Your task to perform on an android device: Toggle the flashlight Image 0: 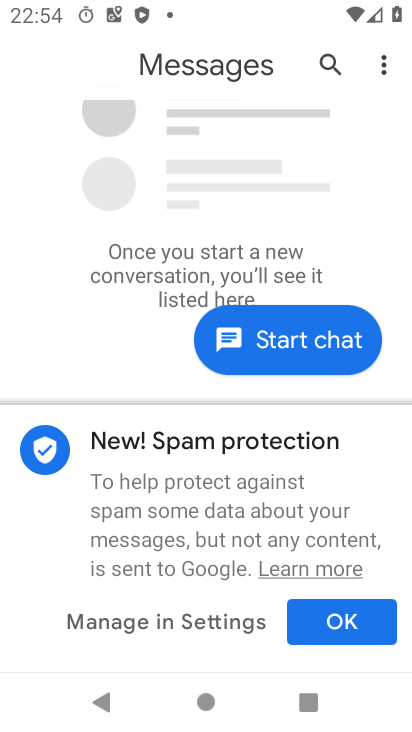
Step 0: drag from (234, 464) to (277, 262)
Your task to perform on an android device: Toggle the flashlight Image 1: 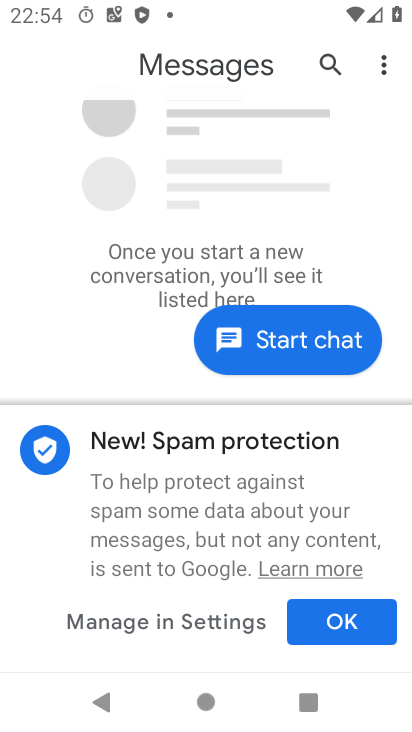
Step 1: drag from (162, 557) to (210, 338)
Your task to perform on an android device: Toggle the flashlight Image 2: 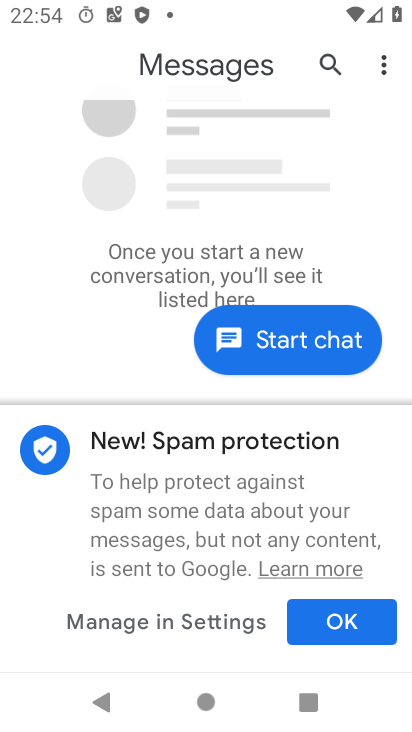
Step 2: drag from (168, 529) to (223, 305)
Your task to perform on an android device: Toggle the flashlight Image 3: 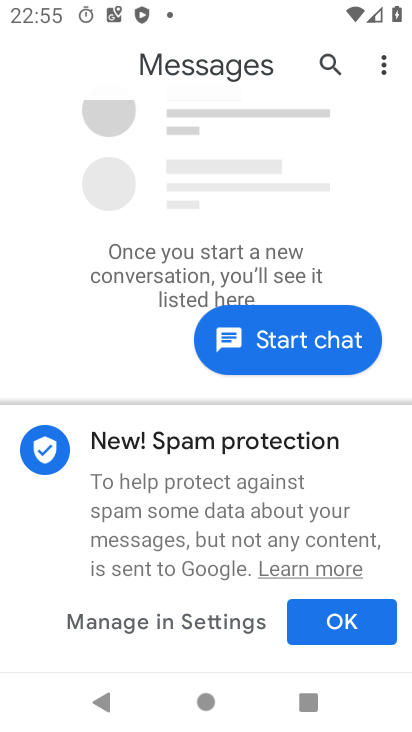
Step 3: drag from (369, 175) to (370, 487)
Your task to perform on an android device: Toggle the flashlight Image 4: 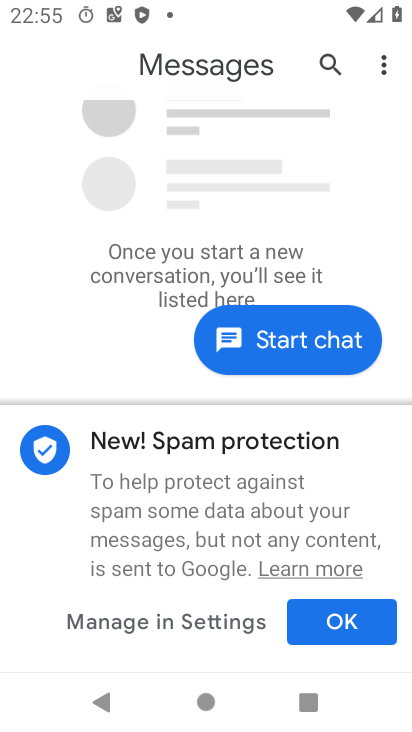
Step 4: press home button
Your task to perform on an android device: Toggle the flashlight Image 5: 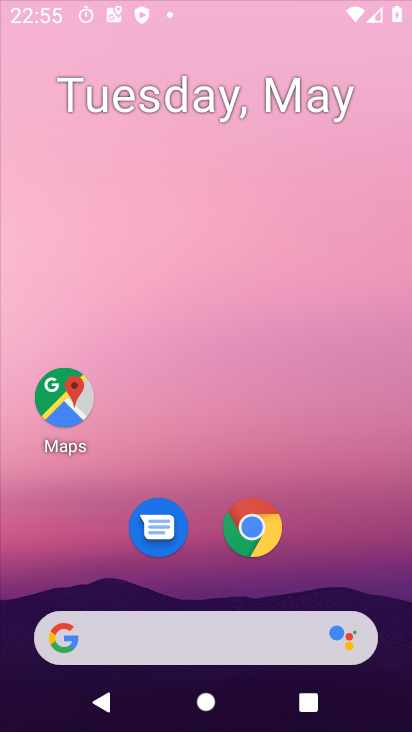
Step 5: drag from (228, 480) to (328, 194)
Your task to perform on an android device: Toggle the flashlight Image 6: 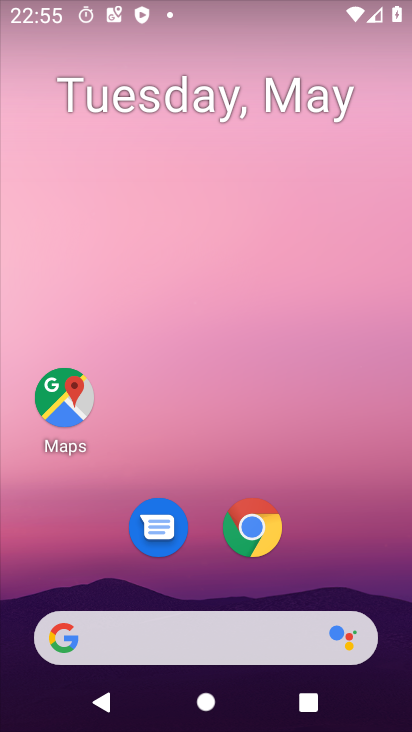
Step 6: drag from (187, 586) to (261, 197)
Your task to perform on an android device: Toggle the flashlight Image 7: 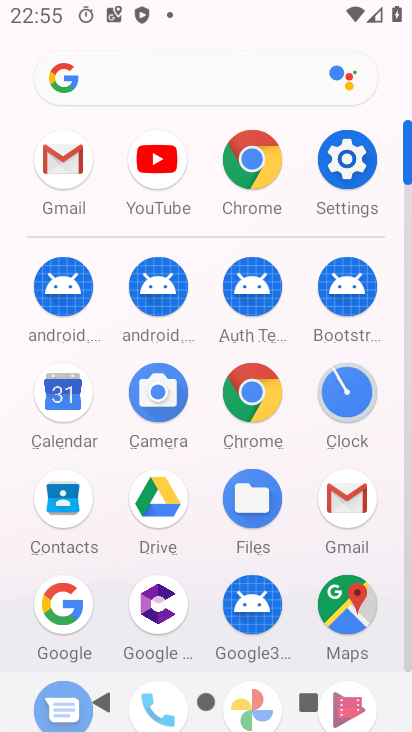
Step 7: click (341, 153)
Your task to perform on an android device: Toggle the flashlight Image 8: 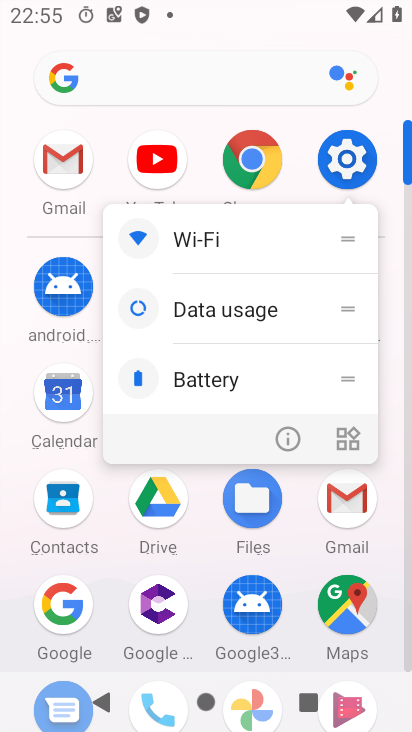
Step 8: click (288, 425)
Your task to perform on an android device: Toggle the flashlight Image 9: 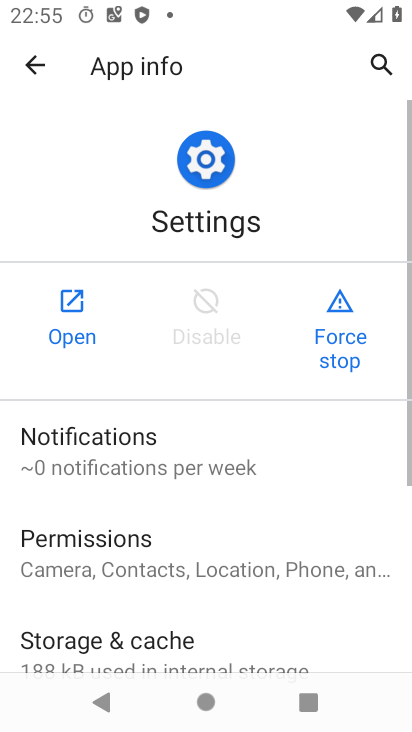
Step 9: click (74, 297)
Your task to perform on an android device: Toggle the flashlight Image 10: 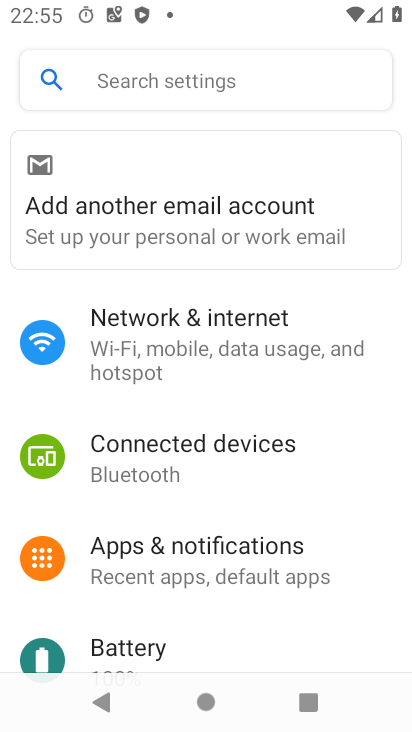
Step 10: drag from (207, 496) to (268, 250)
Your task to perform on an android device: Toggle the flashlight Image 11: 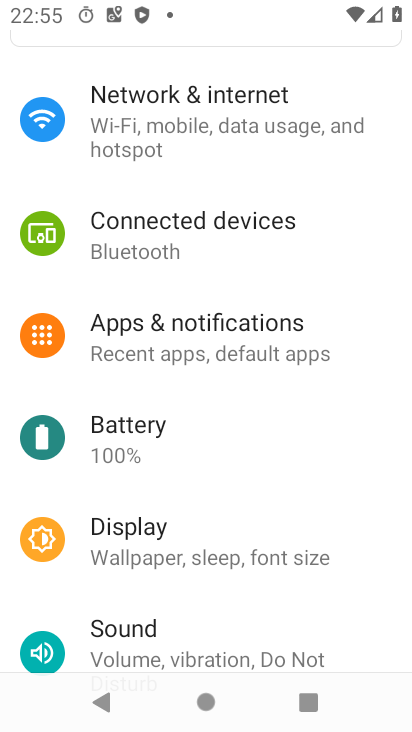
Step 11: drag from (204, 621) to (281, 282)
Your task to perform on an android device: Toggle the flashlight Image 12: 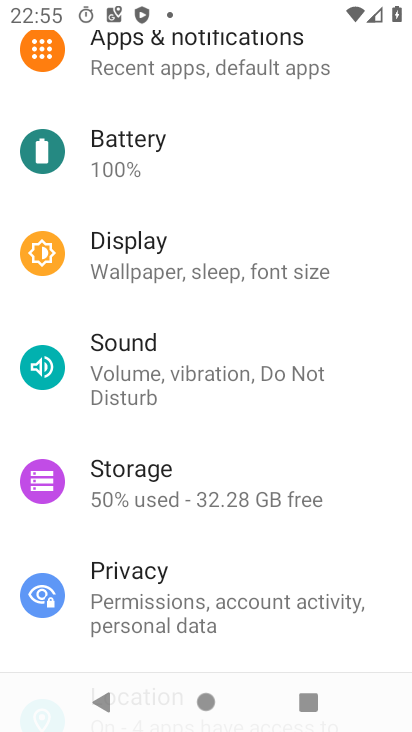
Step 12: drag from (248, 280) to (363, 725)
Your task to perform on an android device: Toggle the flashlight Image 13: 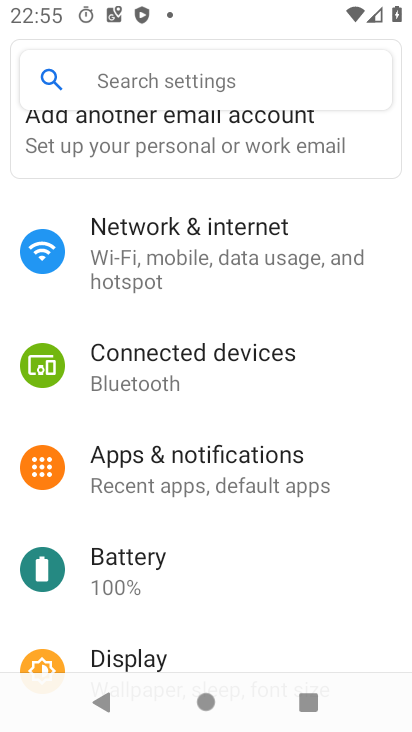
Step 13: click (179, 74)
Your task to perform on an android device: Toggle the flashlight Image 14: 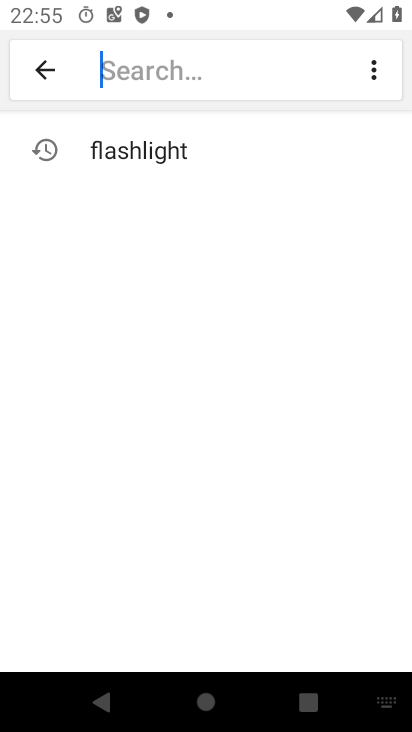
Step 14: click (174, 153)
Your task to perform on an android device: Toggle the flashlight Image 15: 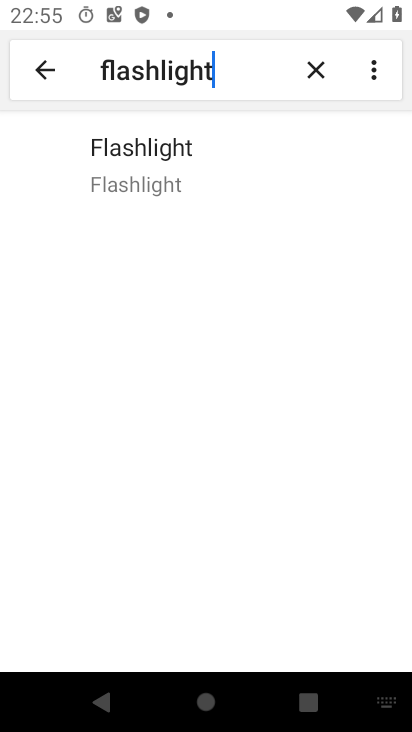
Step 15: click (177, 135)
Your task to perform on an android device: Toggle the flashlight Image 16: 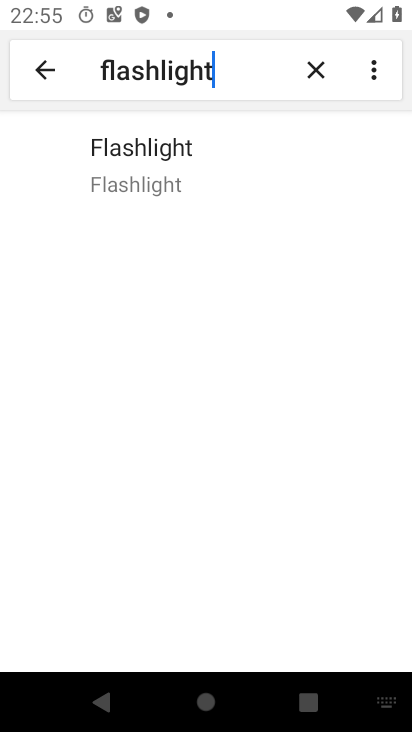
Step 16: task complete